Your task to perform on an android device: toggle improve location accuracy Image 0: 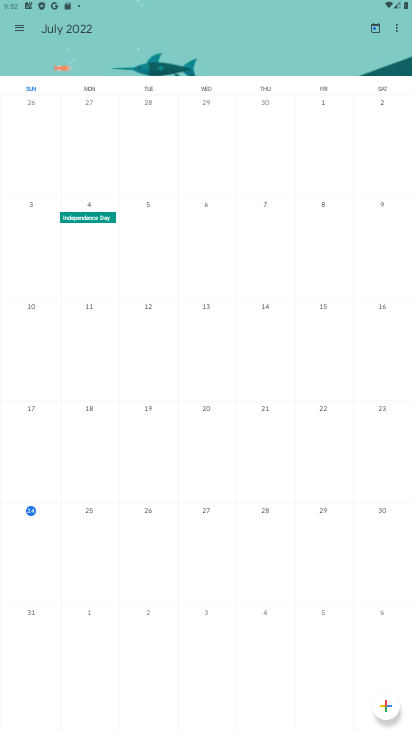
Step 0: press home button
Your task to perform on an android device: toggle improve location accuracy Image 1: 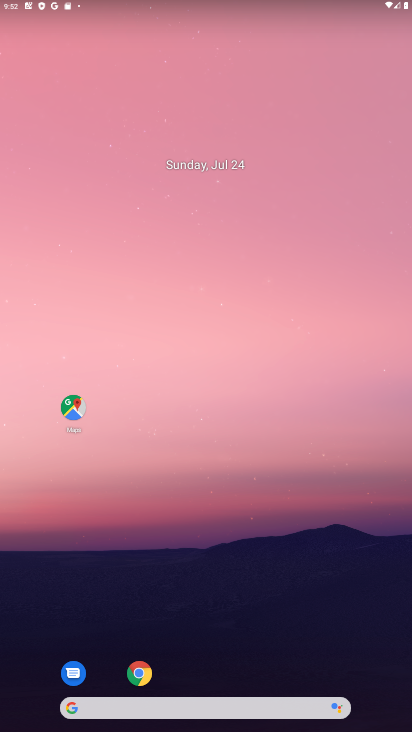
Step 1: drag from (36, 696) to (295, 98)
Your task to perform on an android device: toggle improve location accuracy Image 2: 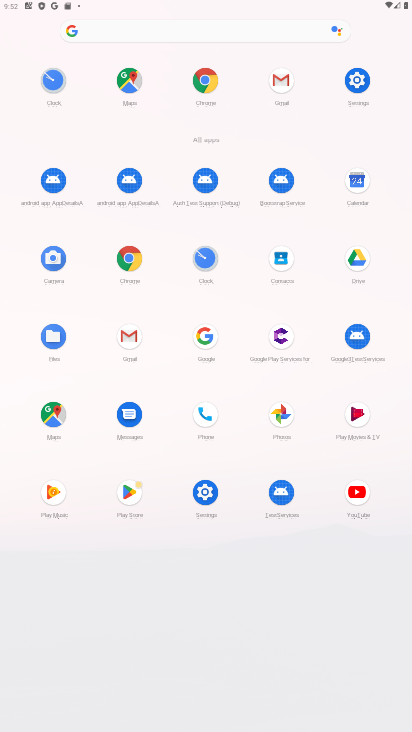
Step 2: click (209, 507)
Your task to perform on an android device: toggle improve location accuracy Image 3: 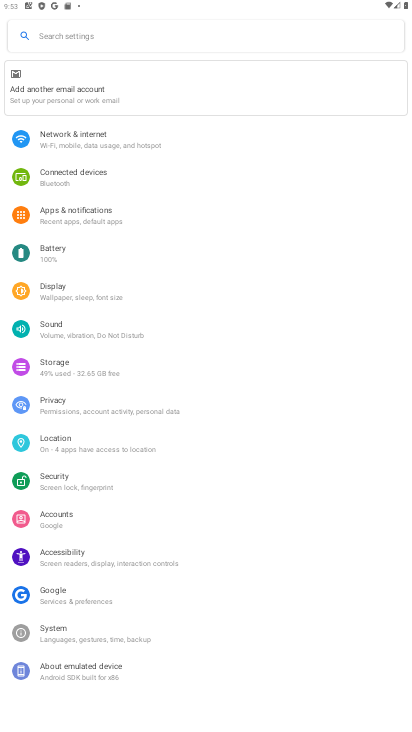
Step 3: click (67, 442)
Your task to perform on an android device: toggle improve location accuracy Image 4: 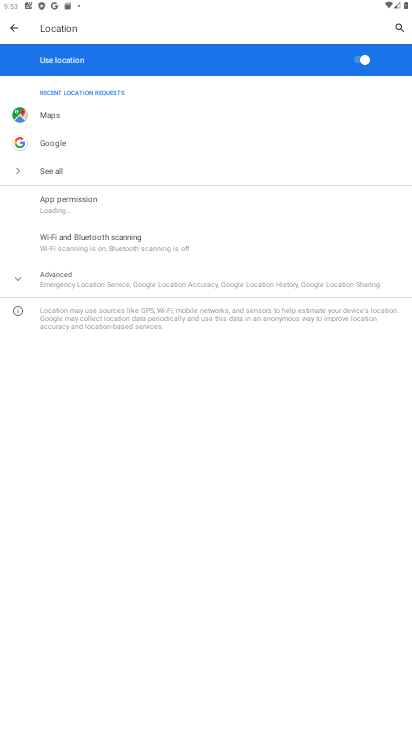
Step 4: click (83, 282)
Your task to perform on an android device: toggle improve location accuracy Image 5: 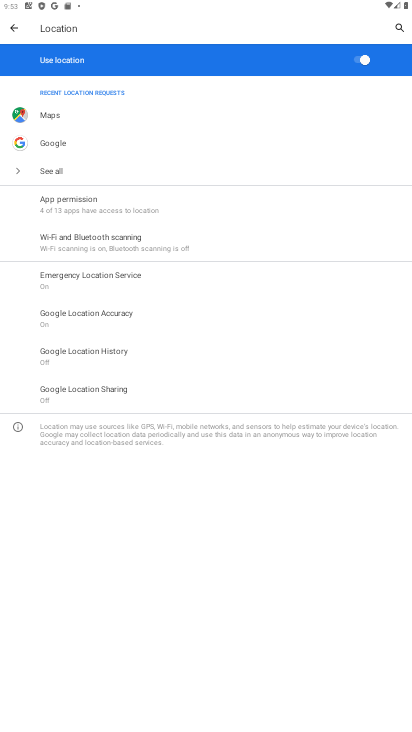
Step 5: task complete